Your task to perform on an android device: Go to battery settings Image 0: 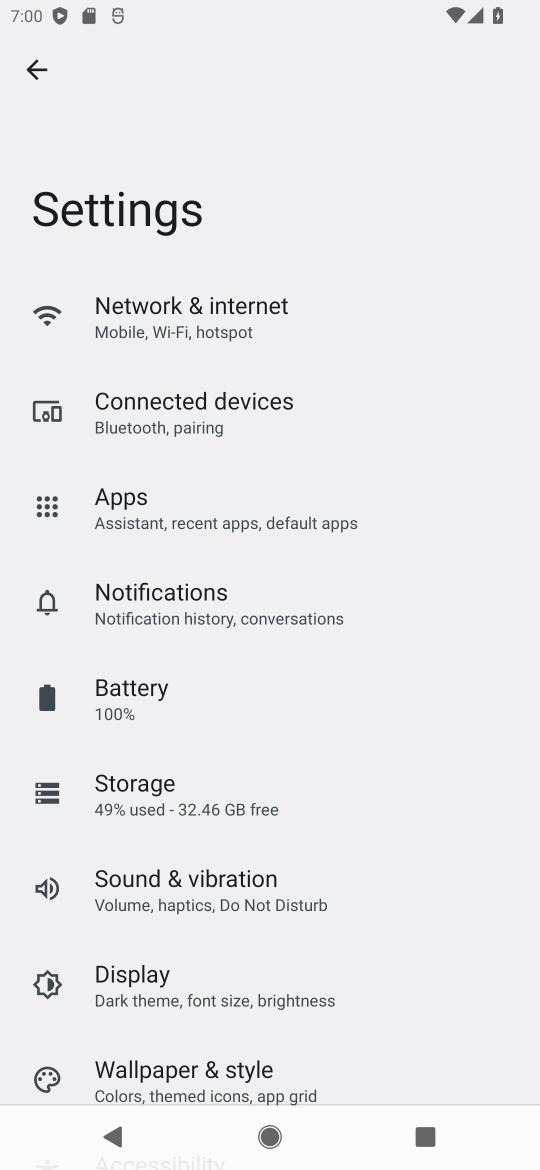
Step 0: click (102, 695)
Your task to perform on an android device: Go to battery settings Image 1: 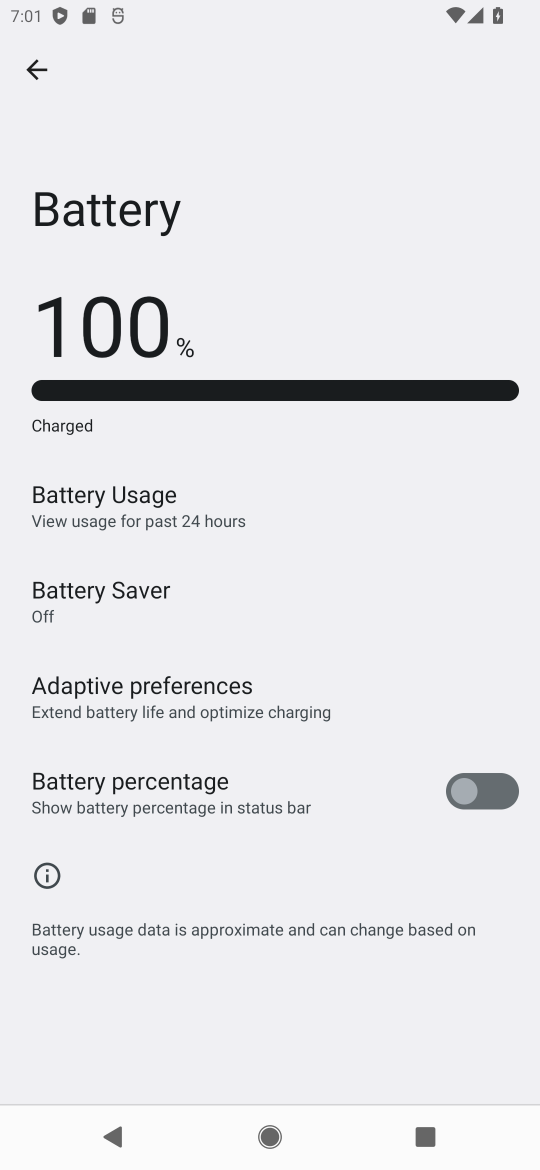
Step 1: task complete